Your task to perform on an android device: Search for "macbook air" on costco, select the first entry, and add it to the cart. Image 0: 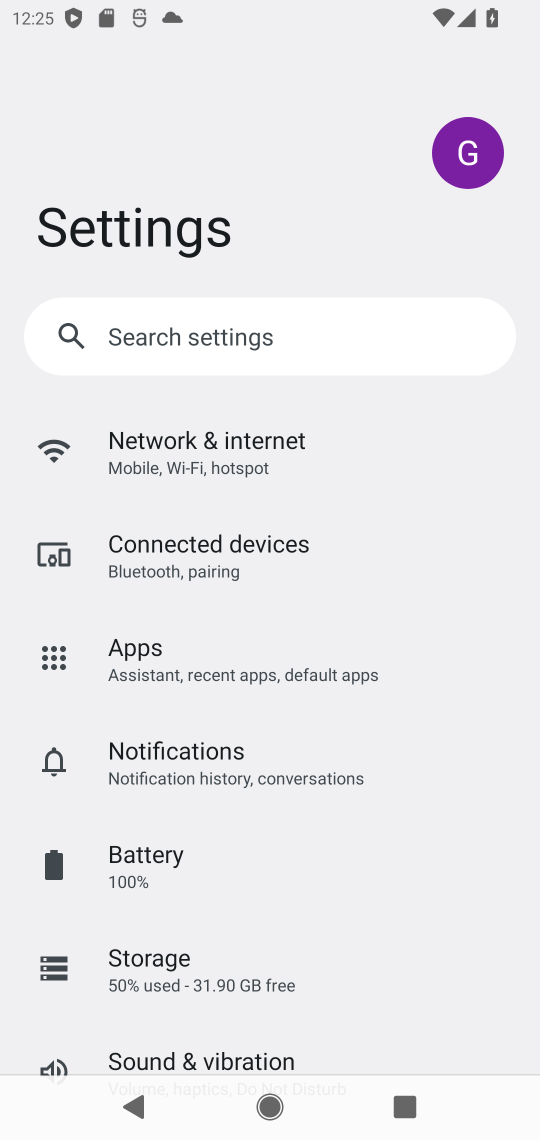
Step 0: press home button
Your task to perform on an android device: Search for "macbook air" on costco, select the first entry, and add it to the cart. Image 1: 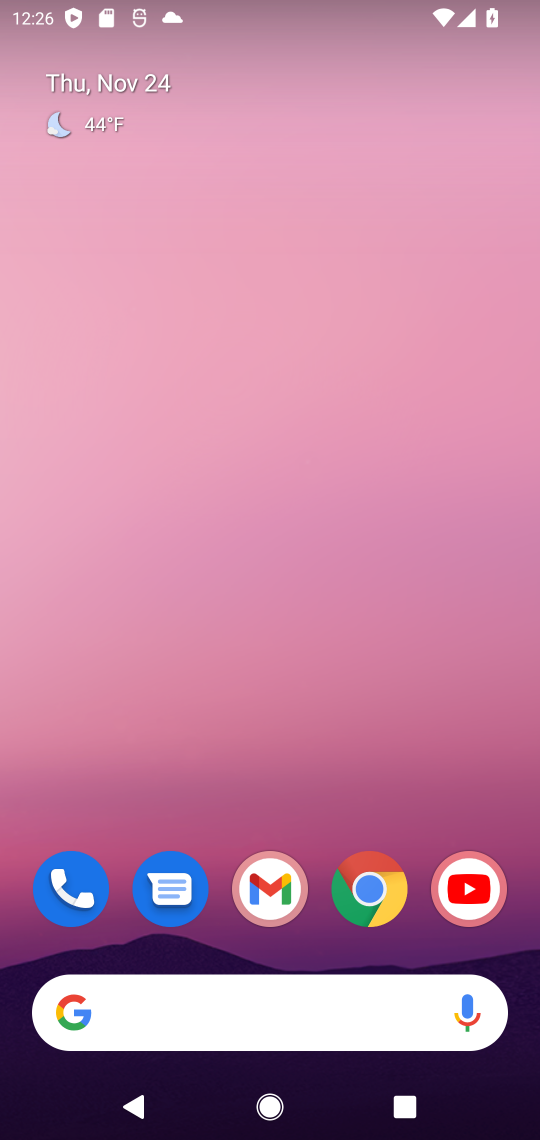
Step 1: click (372, 883)
Your task to perform on an android device: Search for "macbook air" on costco, select the first entry, and add it to the cart. Image 2: 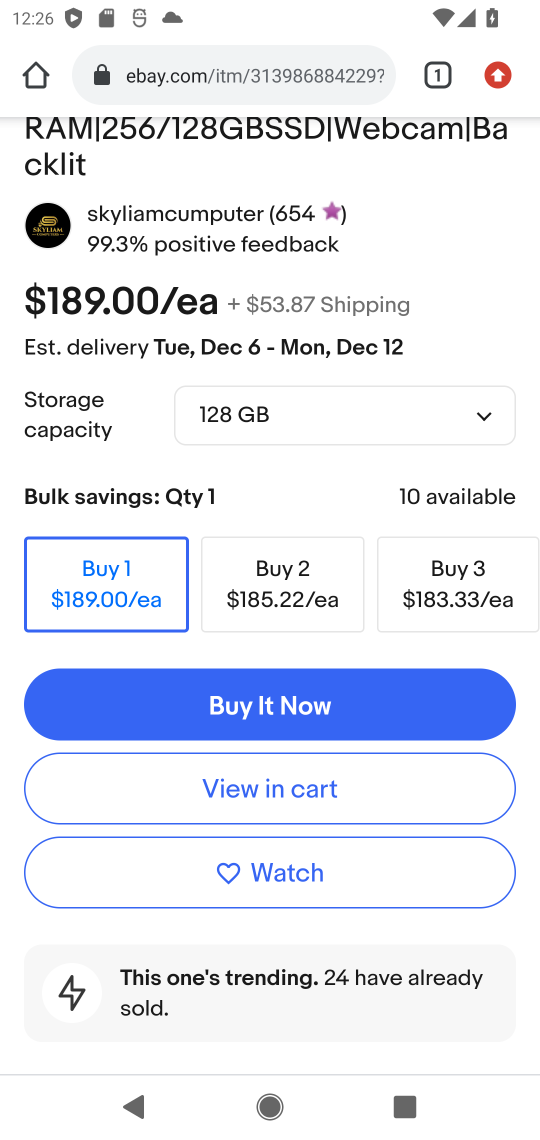
Step 2: click (208, 74)
Your task to perform on an android device: Search for "macbook air" on costco, select the first entry, and add it to the cart. Image 3: 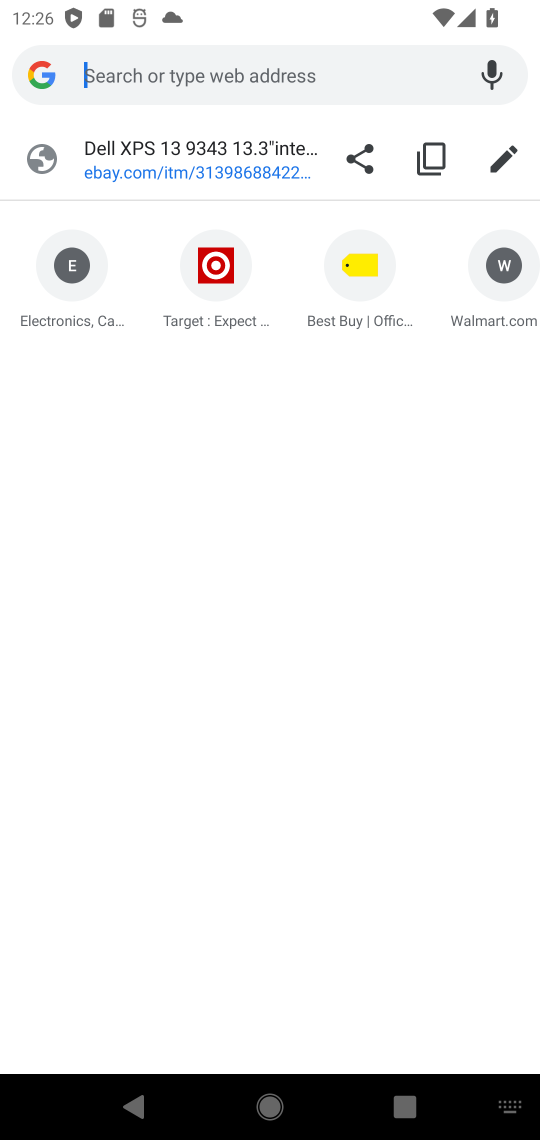
Step 3: type "costco.com"
Your task to perform on an android device: Search for "macbook air" on costco, select the first entry, and add it to the cart. Image 4: 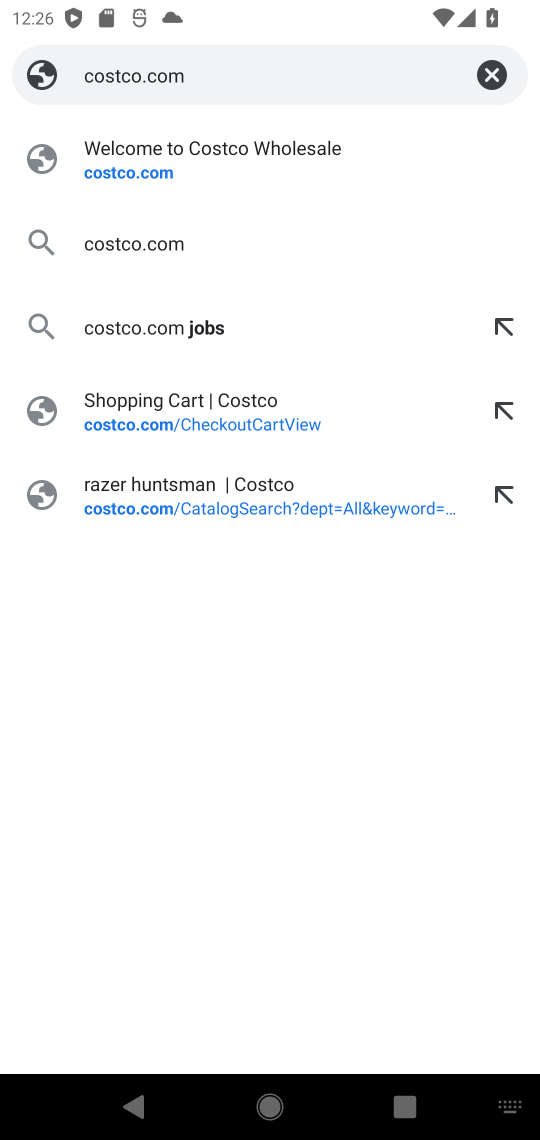
Step 4: click (104, 165)
Your task to perform on an android device: Search for "macbook air" on costco, select the first entry, and add it to the cart. Image 5: 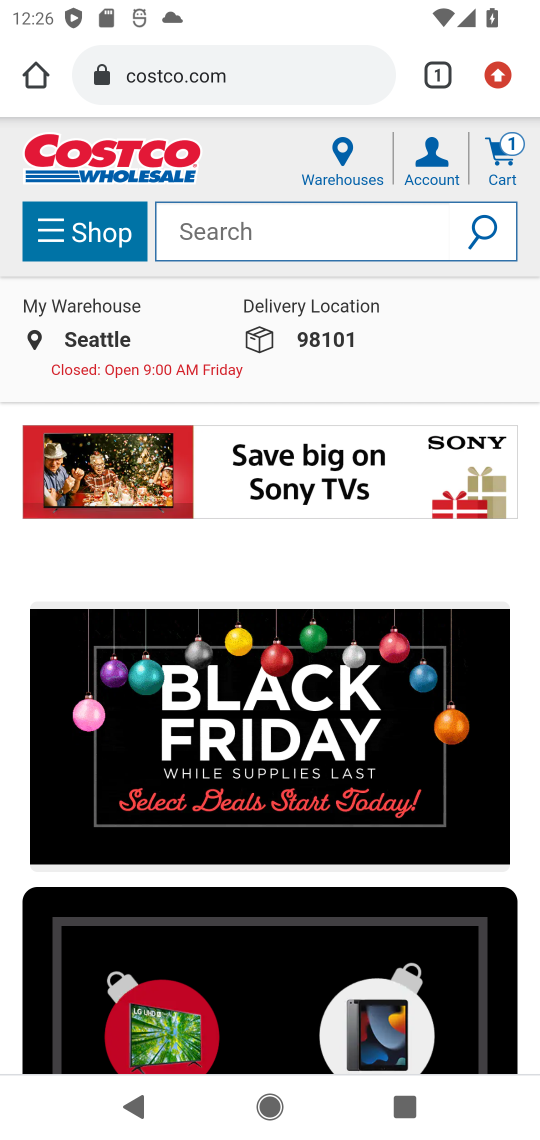
Step 5: click (208, 237)
Your task to perform on an android device: Search for "macbook air" on costco, select the first entry, and add it to the cart. Image 6: 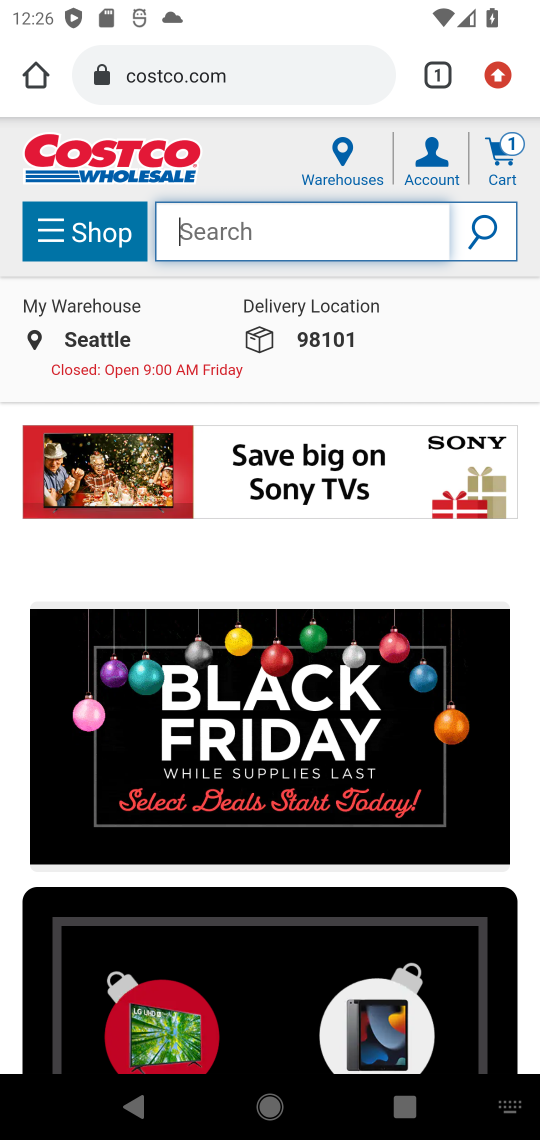
Step 6: type "macbook air"
Your task to perform on an android device: Search for "macbook air" on costco, select the first entry, and add it to the cart. Image 7: 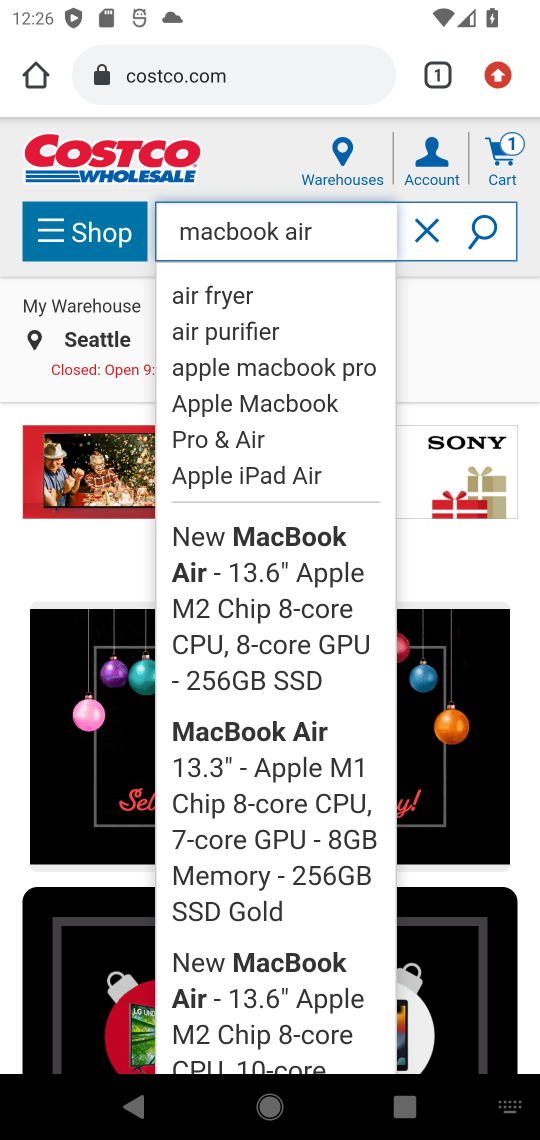
Step 7: click (472, 243)
Your task to perform on an android device: Search for "macbook air" on costco, select the first entry, and add it to the cart. Image 8: 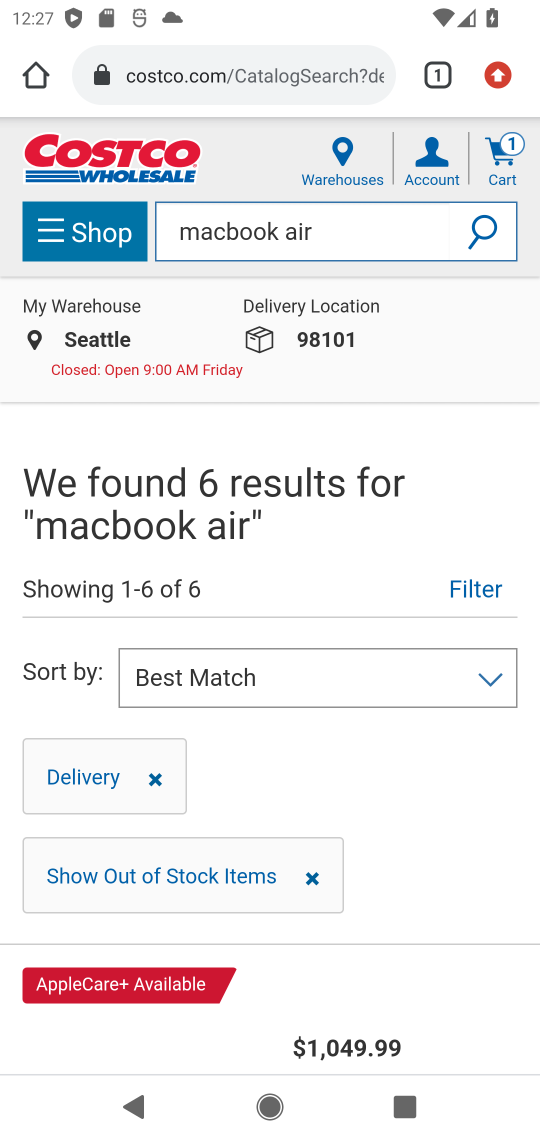
Step 8: drag from (206, 749) to (256, 425)
Your task to perform on an android device: Search for "macbook air" on costco, select the first entry, and add it to the cart. Image 9: 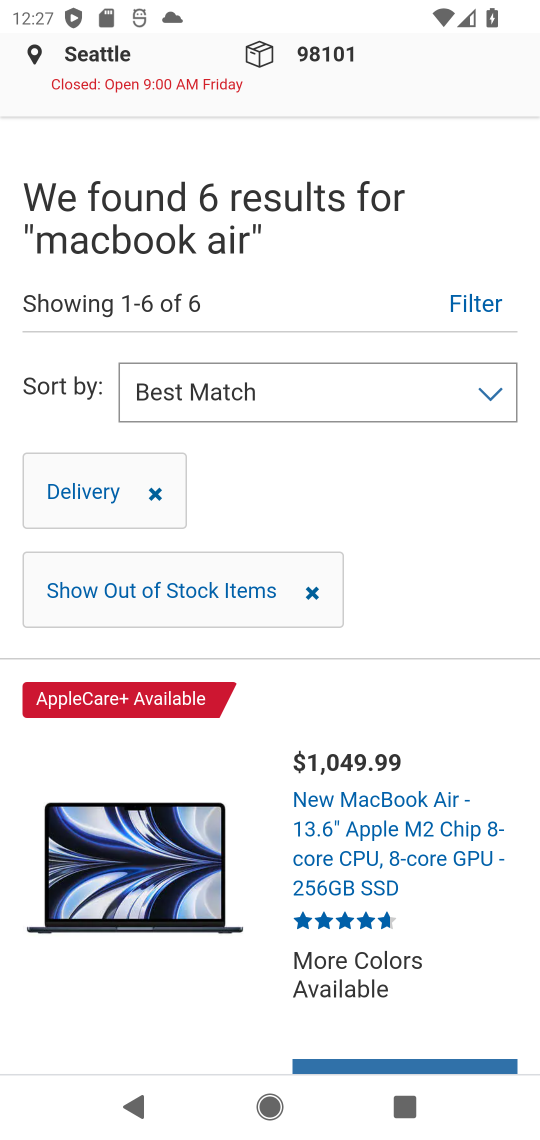
Step 9: drag from (248, 767) to (288, 410)
Your task to perform on an android device: Search for "macbook air" on costco, select the first entry, and add it to the cart. Image 10: 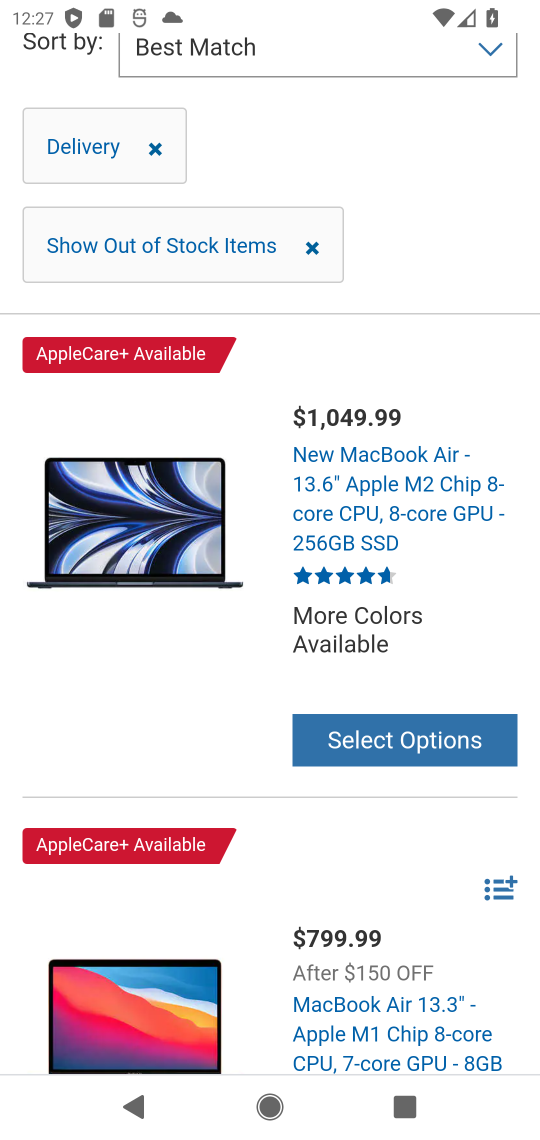
Step 10: click (191, 583)
Your task to perform on an android device: Search for "macbook air" on costco, select the first entry, and add it to the cart. Image 11: 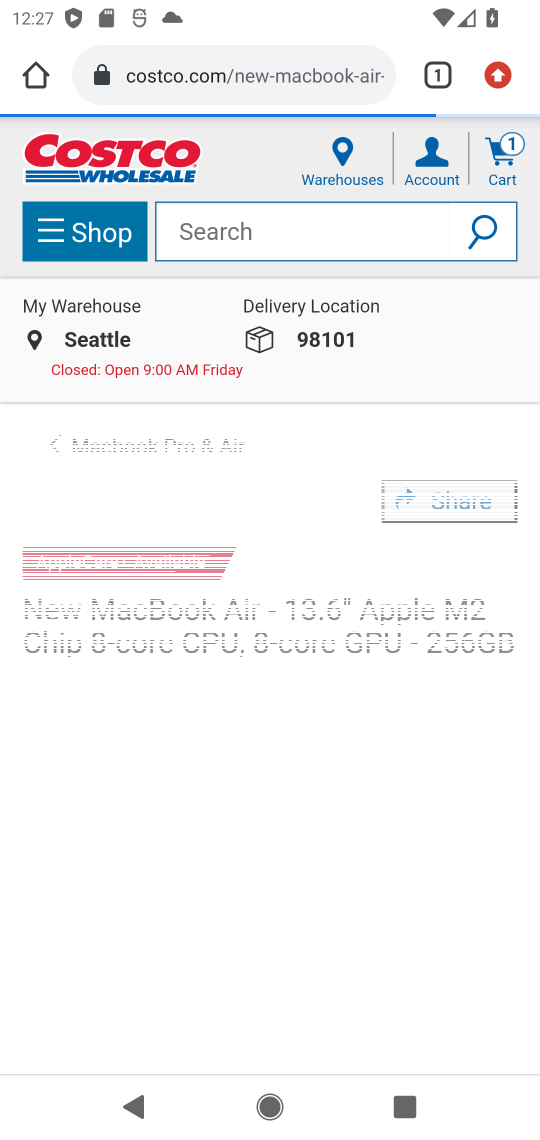
Step 11: drag from (264, 682) to (279, 315)
Your task to perform on an android device: Search for "macbook air" on costco, select the first entry, and add it to the cart. Image 12: 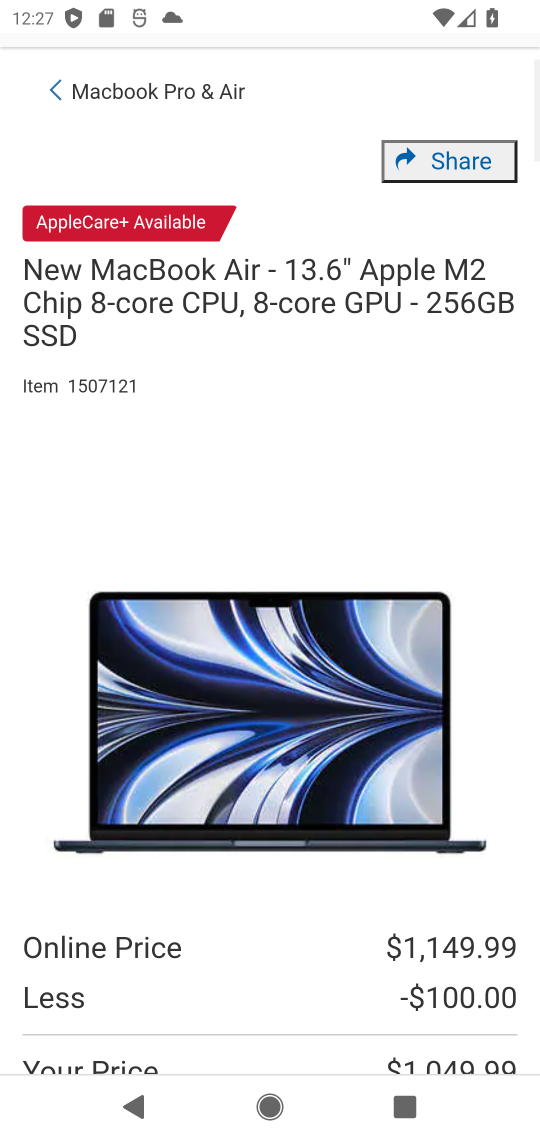
Step 12: drag from (260, 704) to (284, 290)
Your task to perform on an android device: Search for "macbook air" on costco, select the first entry, and add it to the cart. Image 13: 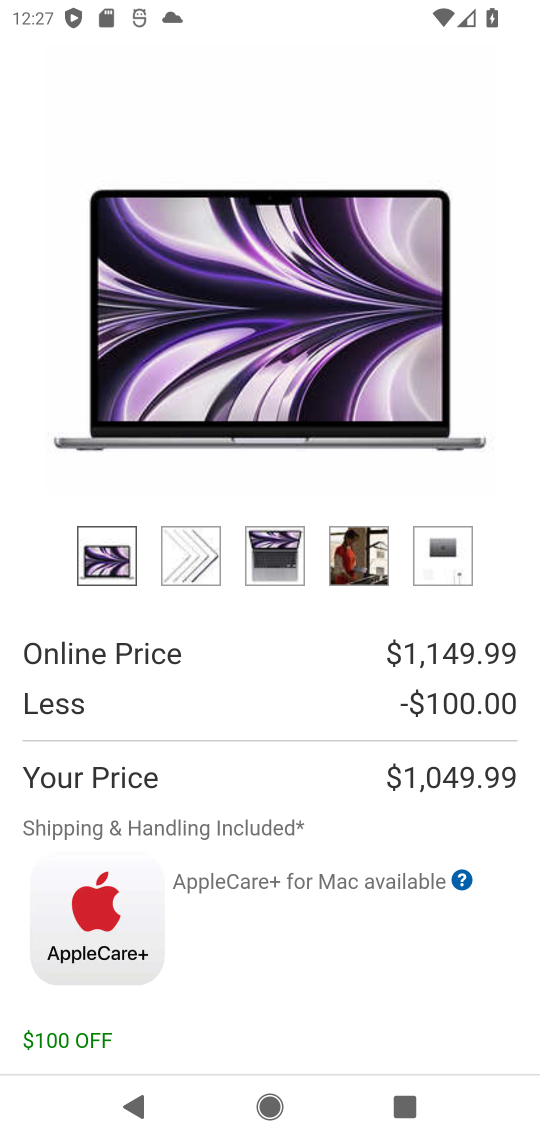
Step 13: drag from (257, 632) to (260, 235)
Your task to perform on an android device: Search for "macbook air" on costco, select the first entry, and add it to the cart. Image 14: 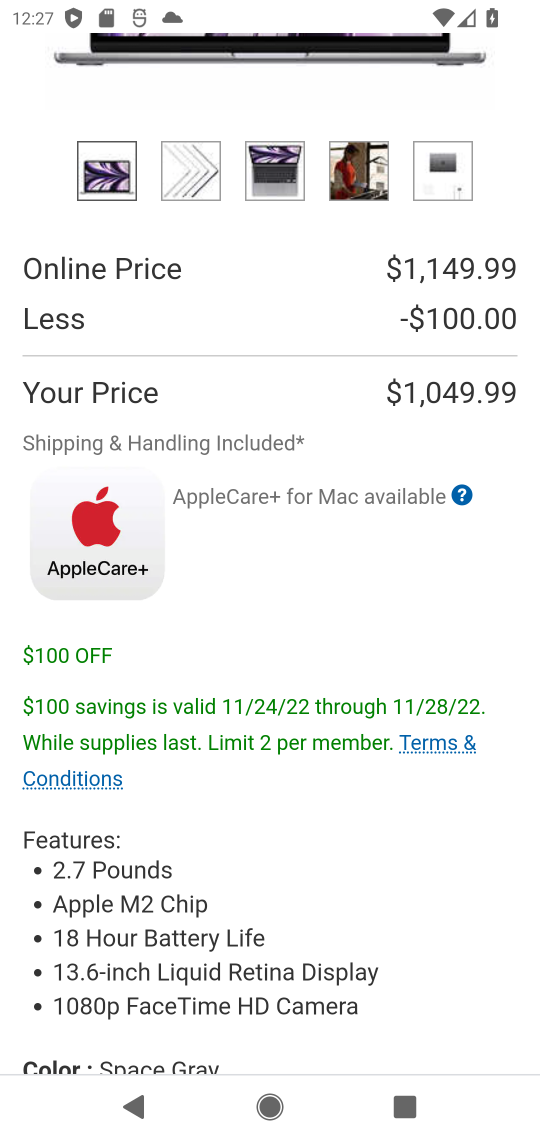
Step 14: drag from (249, 718) to (263, 258)
Your task to perform on an android device: Search for "macbook air" on costco, select the first entry, and add it to the cart. Image 15: 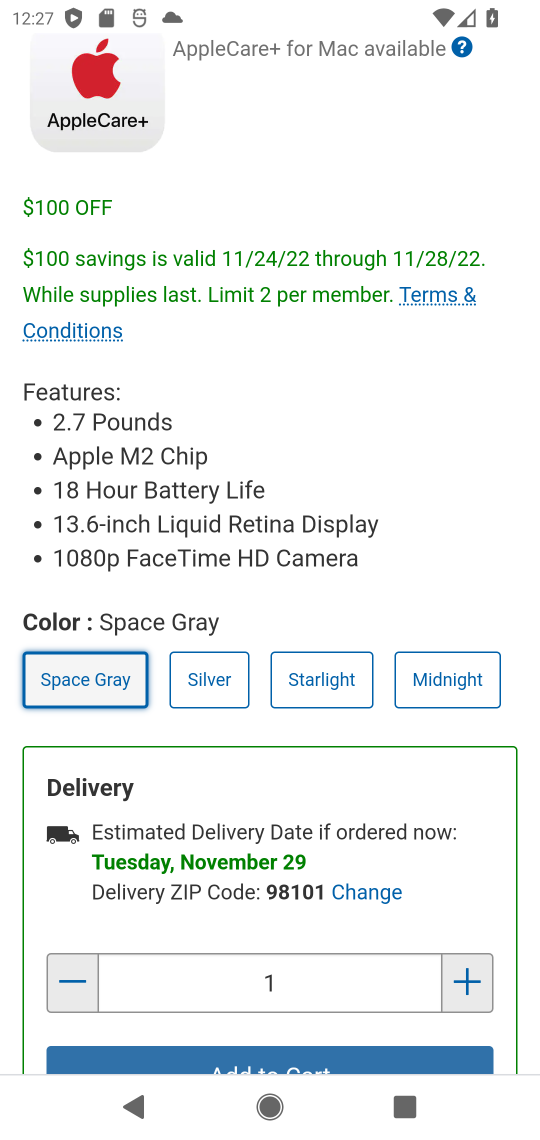
Step 15: drag from (263, 741) to (285, 347)
Your task to perform on an android device: Search for "macbook air" on costco, select the first entry, and add it to the cart. Image 16: 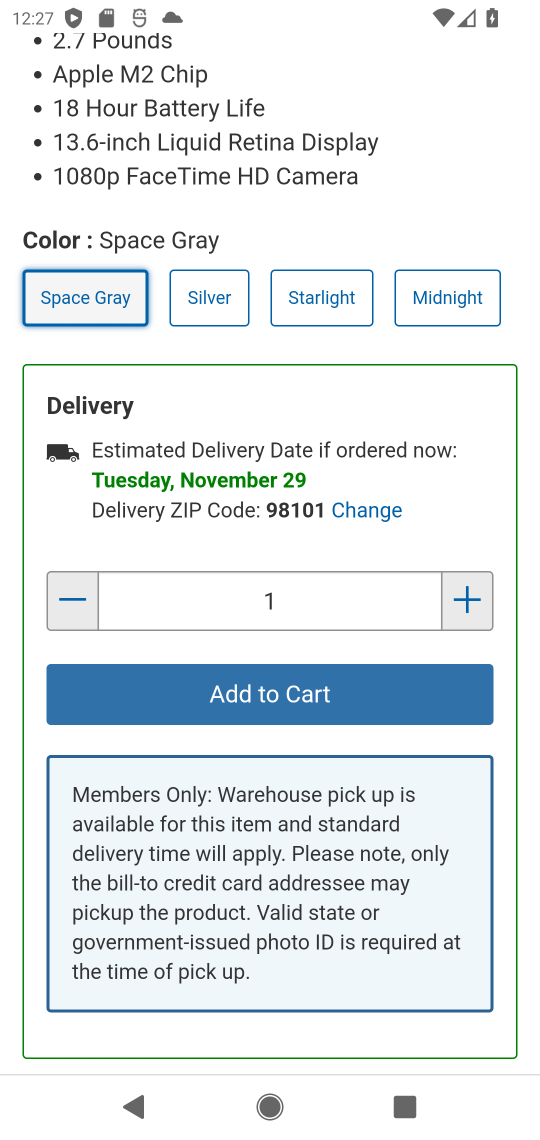
Step 16: click (240, 700)
Your task to perform on an android device: Search for "macbook air" on costco, select the first entry, and add it to the cart. Image 17: 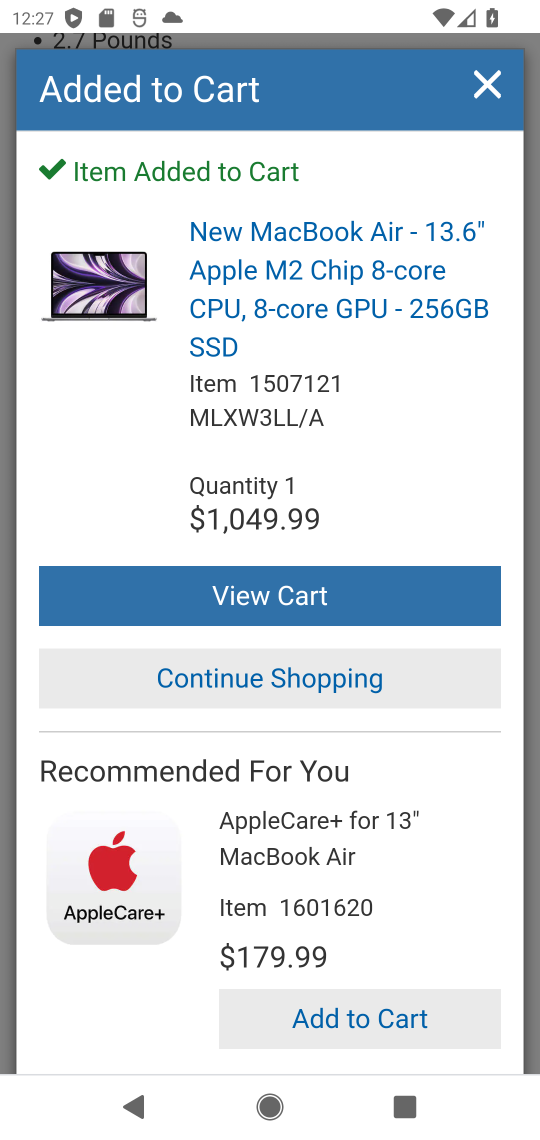
Step 17: task complete